Your task to perform on an android device: turn off improve location accuracy Image 0: 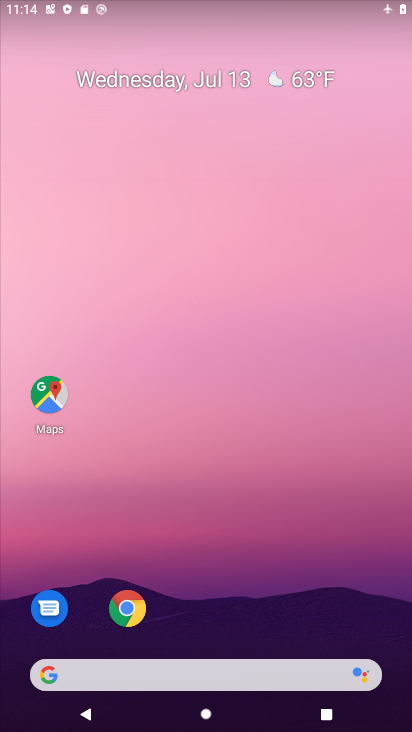
Step 0: press home button
Your task to perform on an android device: turn off improve location accuracy Image 1: 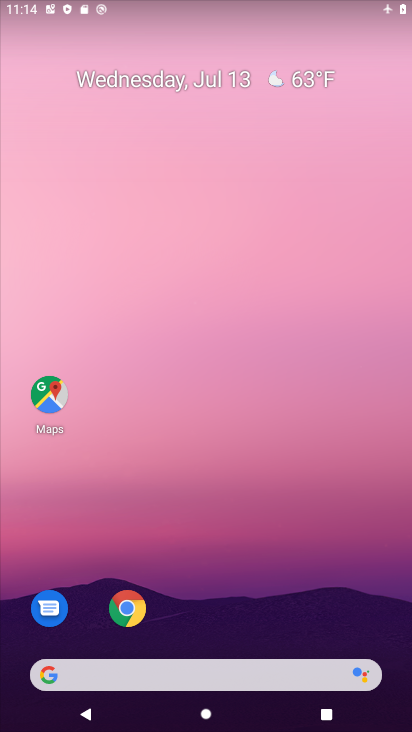
Step 1: drag from (238, 606) to (220, 6)
Your task to perform on an android device: turn off improve location accuracy Image 2: 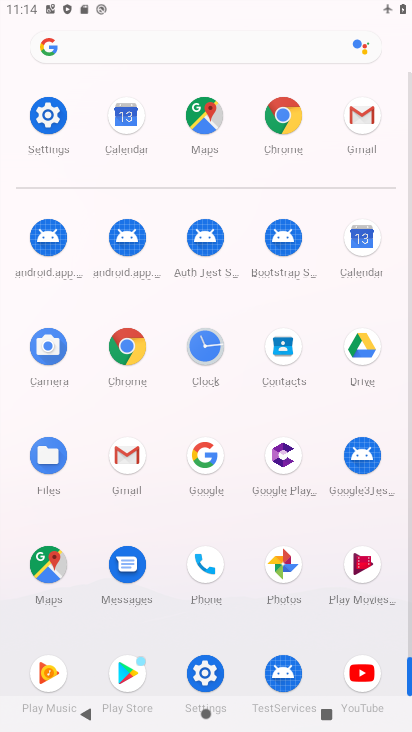
Step 2: drag from (204, 572) to (353, 5)
Your task to perform on an android device: turn off improve location accuracy Image 3: 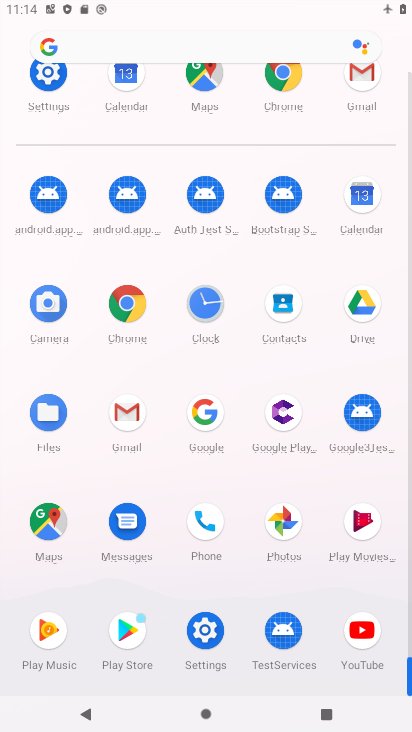
Step 3: click (52, 85)
Your task to perform on an android device: turn off improve location accuracy Image 4: 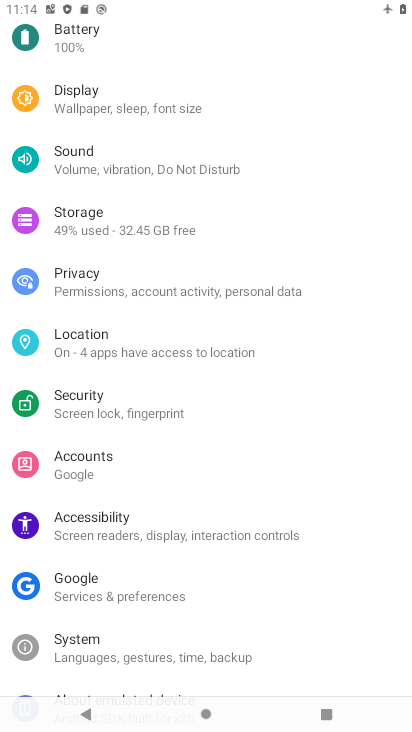
Step 4: click (110, 336)
Your task to perform on an android device: turn off improve location accuracy Image 5: 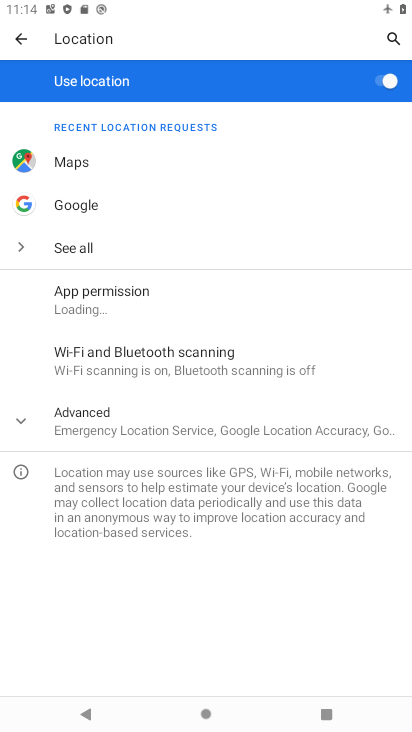
Step 5: click (24, 420)
Your task to perform on an android device: turn off improve location accuracy Image 6: 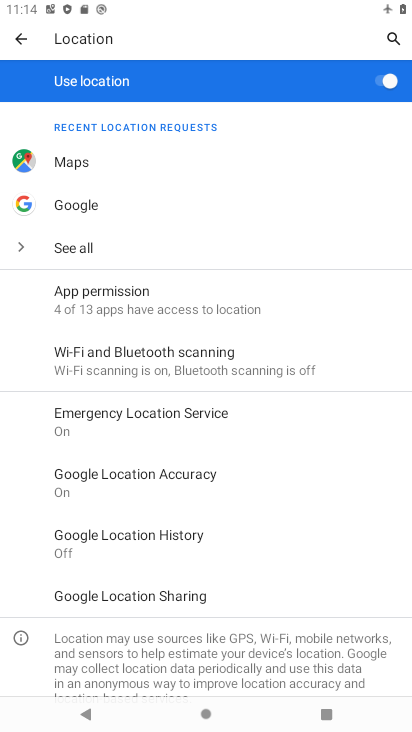
Step 6: click (187, 481)
Your task to perform on an android device: turn off improve location accuracy Image 7: 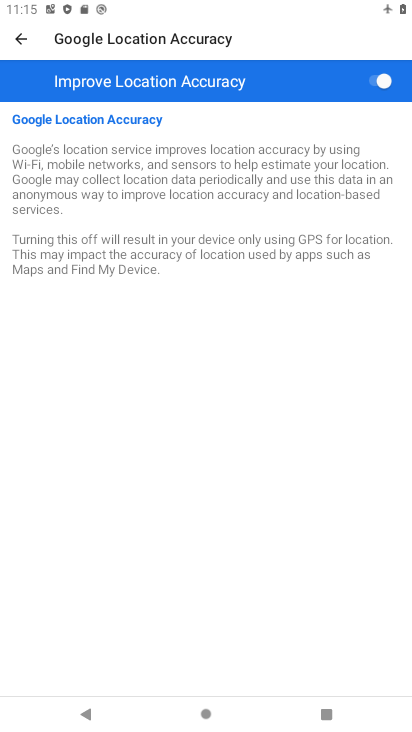
Step 7: click (383, 85)
Your task to perform on an android device: turn off improve location accuracy Image 8: 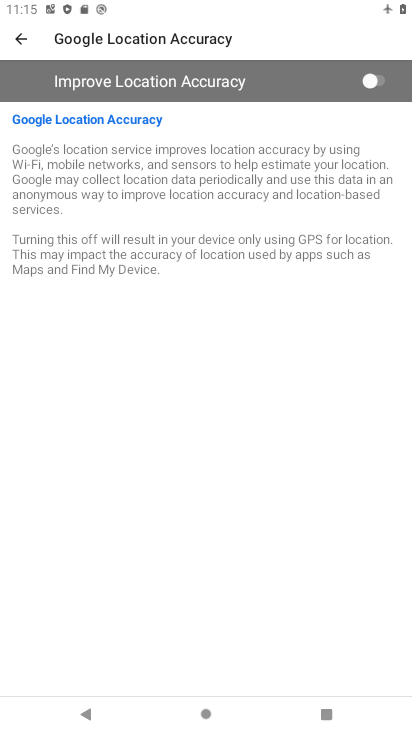
Step 8: task complete